Your task to perform on an android device: What's on my calendar tomorrow? Image 0: 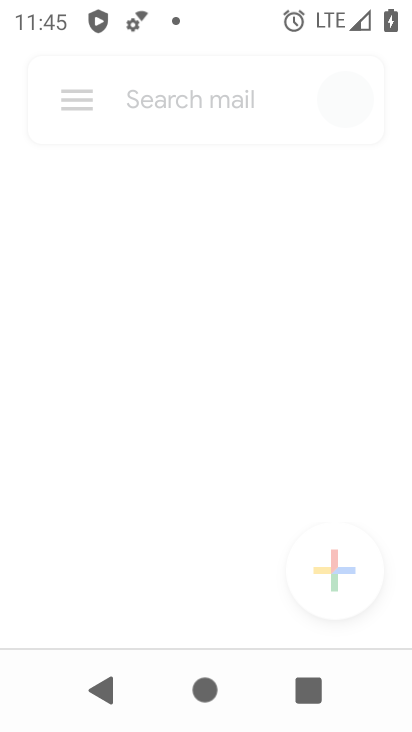
Step 0: drag from (345, 480) to (256, 37)
Your task to perform on an android device: What's on my calendar tomorrow? Image 1: 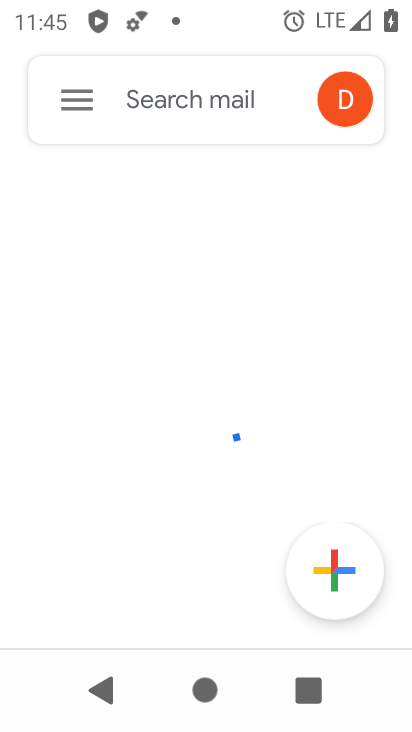
Step 1: press home button
Your task to perform on an android device: What's on my calendar tomorrow? Image 2: 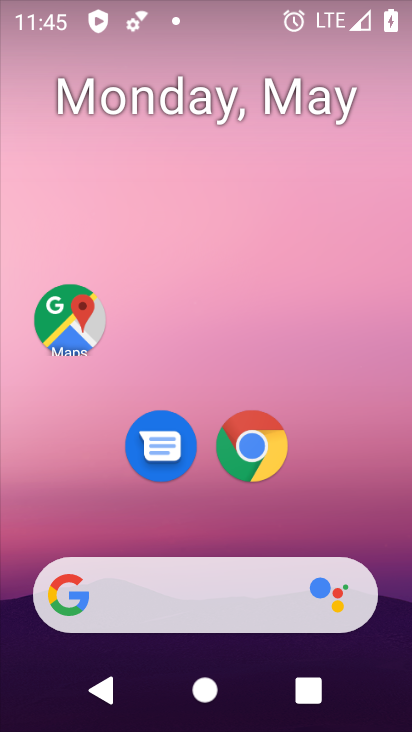
Step 2: drag from (337, 509) to (221, 23)
Your task to perform on an android device: What's on my calendar tomorrow? Image 3: 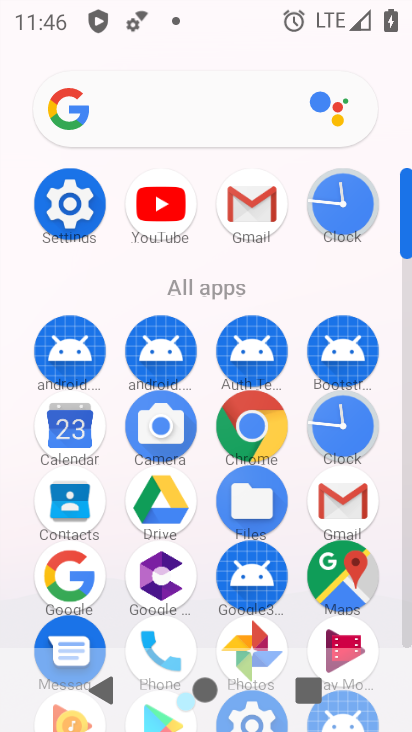
Step 3: click (69, 428)
Your task to perform on an android device: What's on my calendar tomorrow? Image 4: 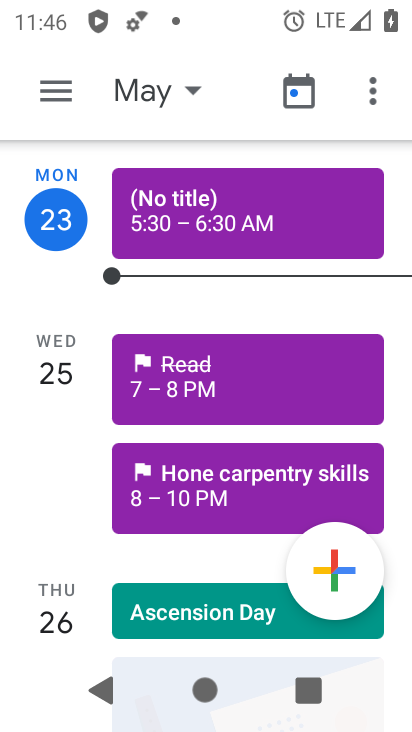
Step 4: click (56, 83)
Your task to perform on an android device: What's on my calendar tomorrow? Image 5: 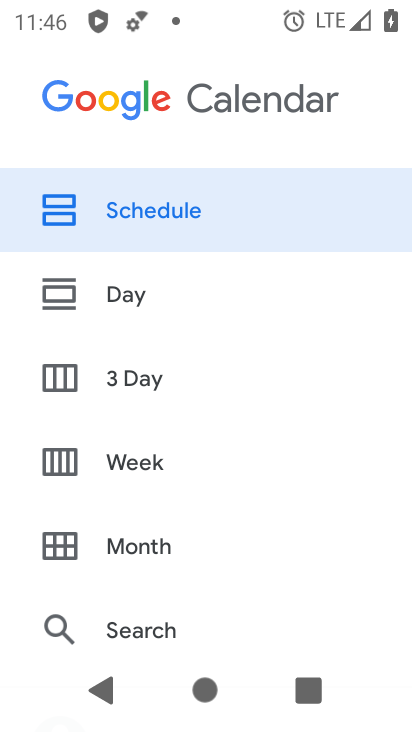
Step 5: click (123, 292)
Your task to perform on an android device: What's on my calendar tomorrow? Image 6: 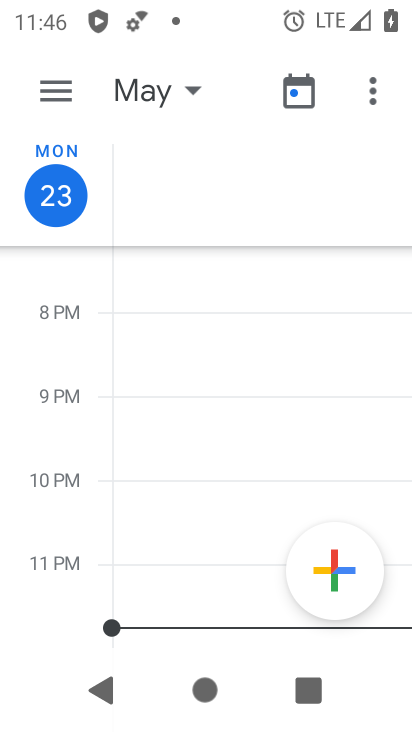
Step 6: click (179, 89)
Your task to perform on an android device: What's on my calendar tomorrow? Image 7: 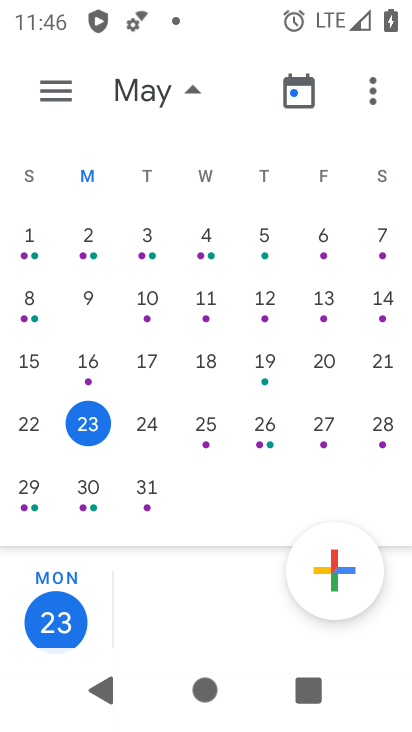
Step 7: click (151, 426)
Your task to perform on an android device: What's on my calendar tomorrow? Image 8: 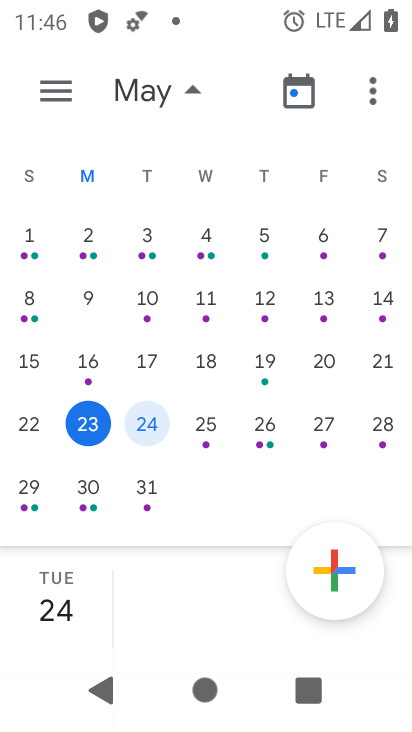
Step 8: task complete